Your task to perform on an android device: open sync settings in chrome Image 0: 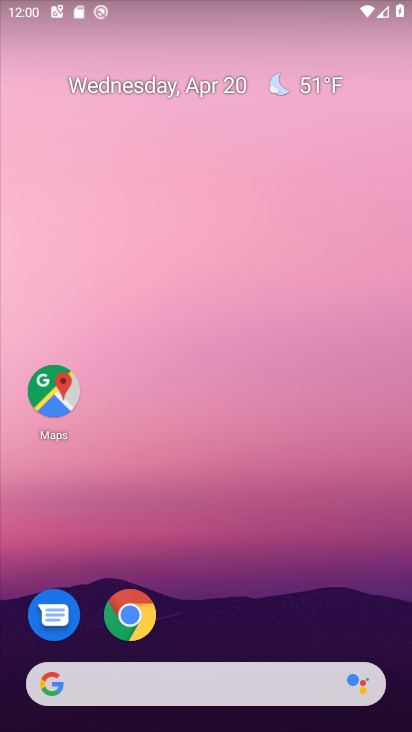
Step 0: click (134, 626)
Your task to perform on an android device: open sync settings in chrome Image 1: 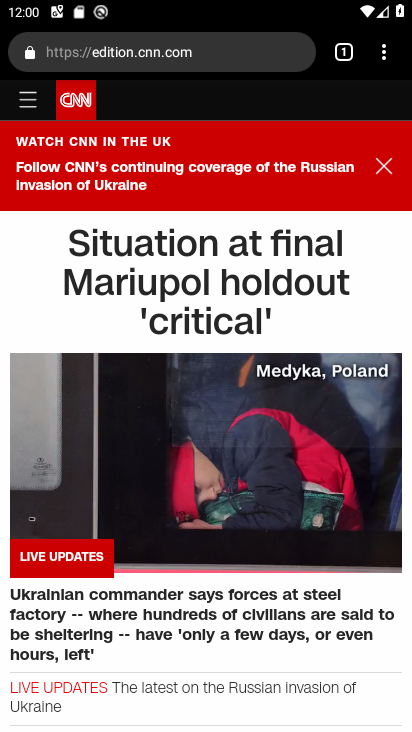
Step 1: drag from (384, 65) to (225, 581)
Your task to perform on an android device: open sync settings in chrome Image 2: 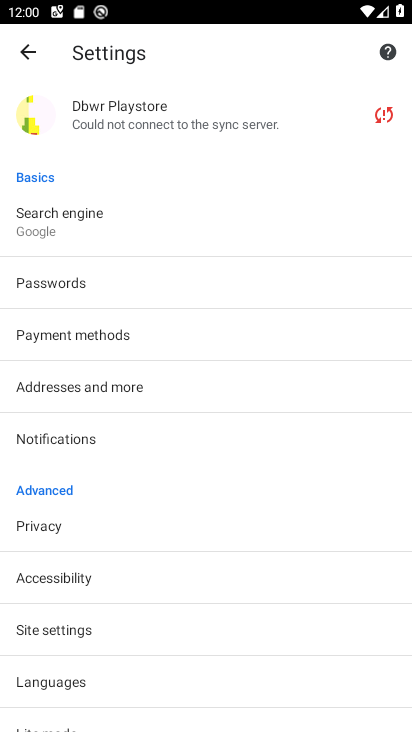
Step 2: click (126, 129)
Your task to perform on an android device: open sync settings in chrome Image 3: 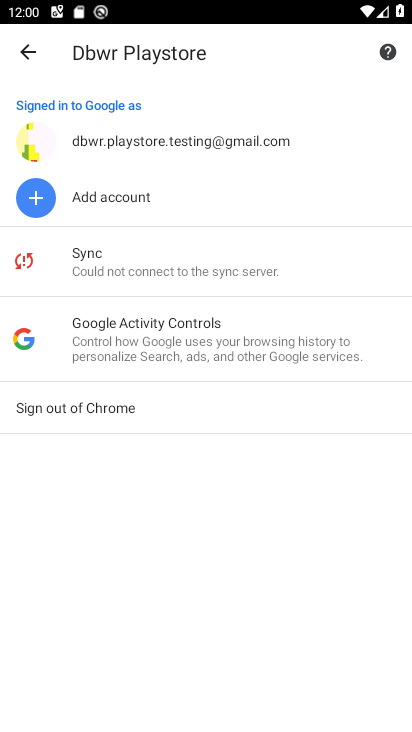
Step 3: click (121, 274)
Your task to perform on an android device: open sync settings in chrome Image 4: 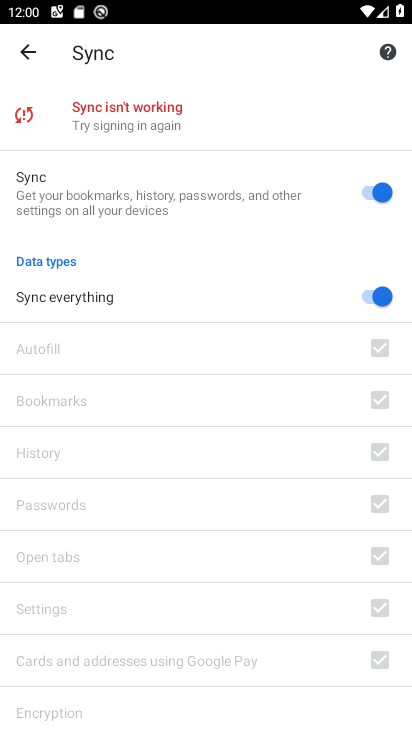
Step 4: task complete